Your task to perform on an android device: Open calendar and show me the second week of next month Image 0: 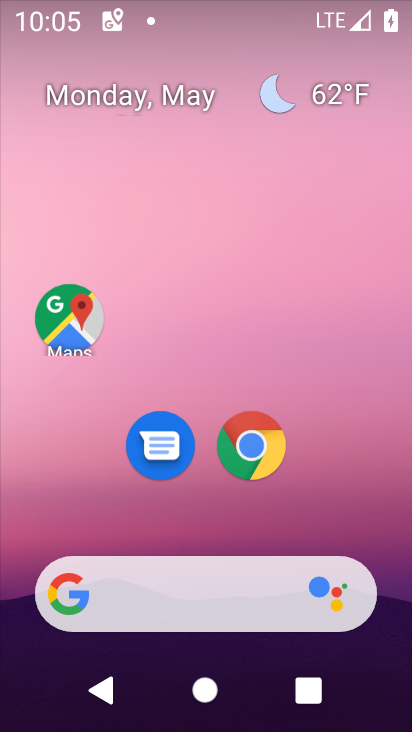
Step 0: drag from (410, 610) to (399, 2)
Your task to perform on an android device: Open calendar and show me the second week of next month Image 1: 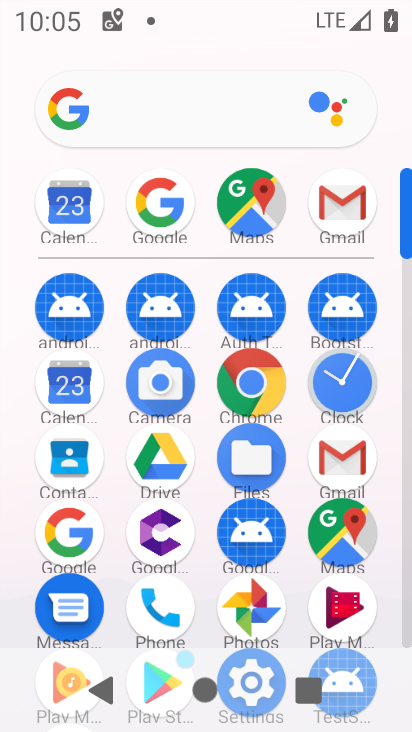
Step 1: click (72, 399)
Your task to perform on an android device: Open calendar and show me the second week of next month Image 2: 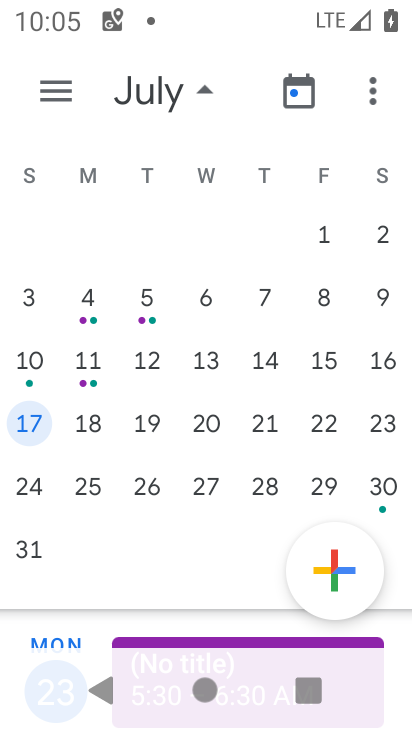
Step 2: drag from (364, 373) to (49, 347)
Your task to perform on an android device: Open calendar and show me the second week of next month Image 3: 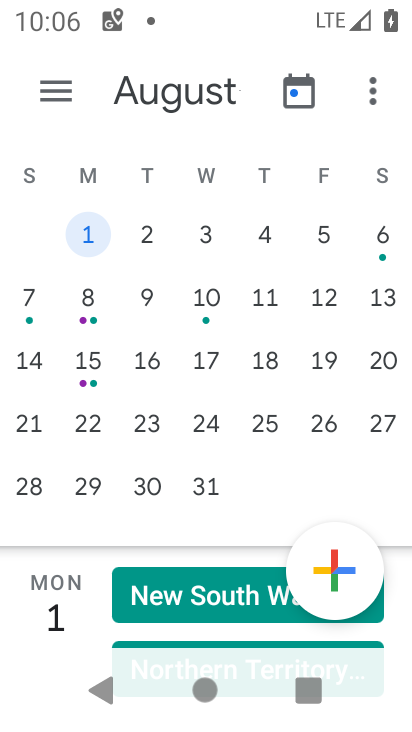
Step 3: click (95, 365)
Your task to perform on an android device: Open calendar and show me the second week of next month Image 4: 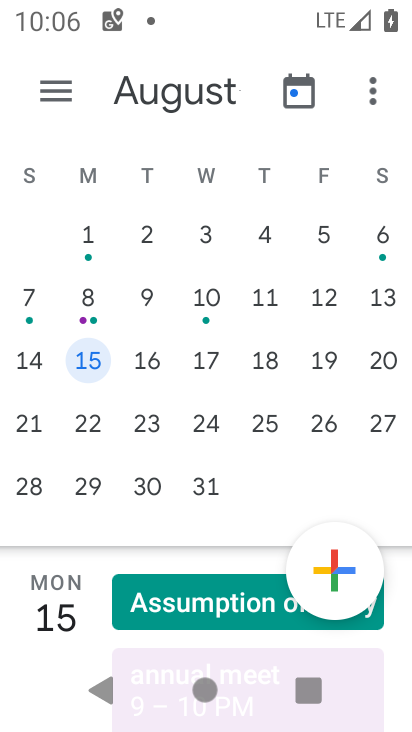
Step 4: task complete